Your task to perform on an android device: turn off priority inbox in the gmail app Image 0: 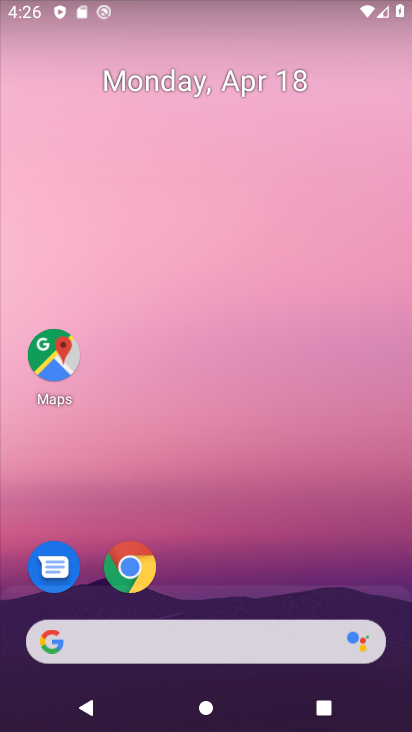
Step 0: drag from (251, 393) to (312, 111)
Your task to perform on an android device: turn off priority inbox in the gmail app Image 1: 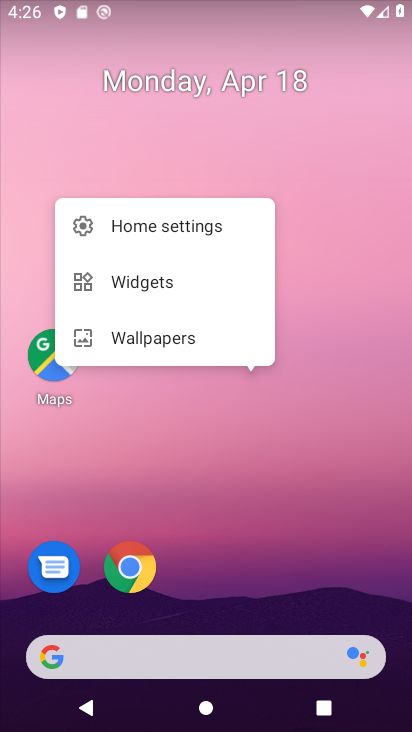
Step 1: drag from (270, 609) to (342, 21)
Your task to perform on an android device: turn off priority inbox in the gmail app Image 2: 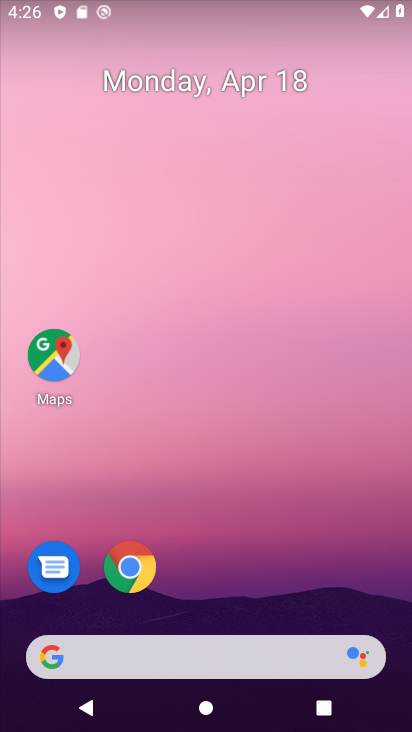
Step 2: drag from (214, 640) to (319, 26)
Your task to perform on an android device: turn off priority inbox in the gmail app Image 3: 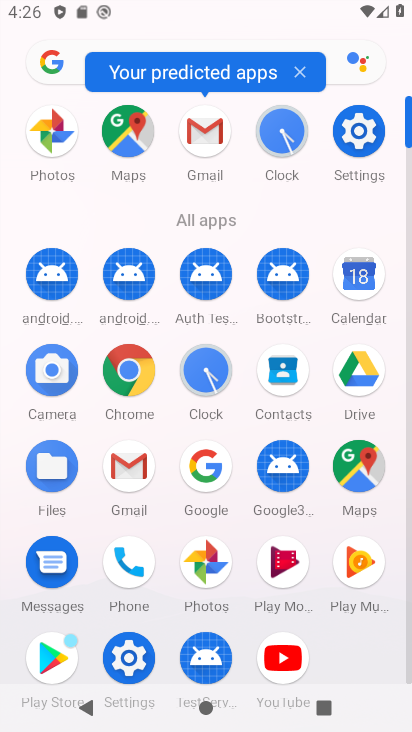
Step 3: click (197, 132)
Your task to perform on an android device: turn off priority inbox in the gmail app Image 4: 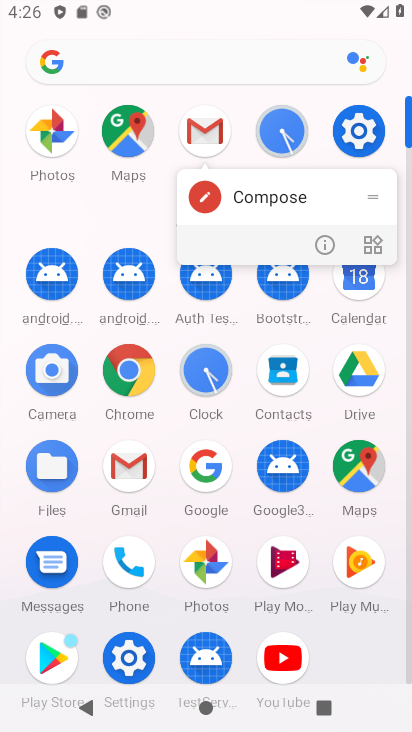
Step 4: click (197, 132)
Your task to perform on an android device: turn off priority inbox in the gmail app Image 5: 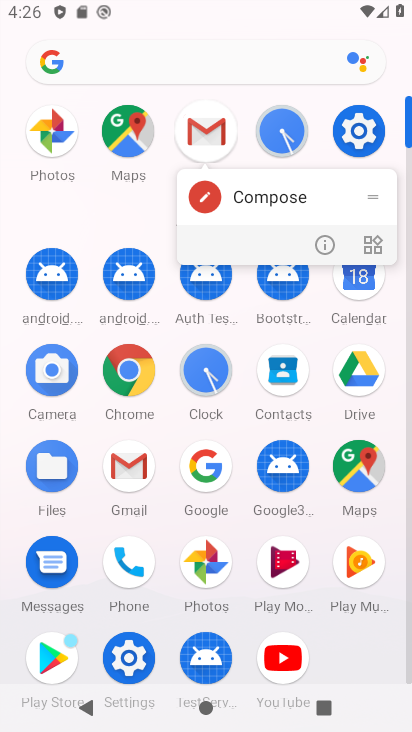
Step 5: click (197, 132)
Your task to perform on an android device: turn off priority inbox in the gmail app Image 6: 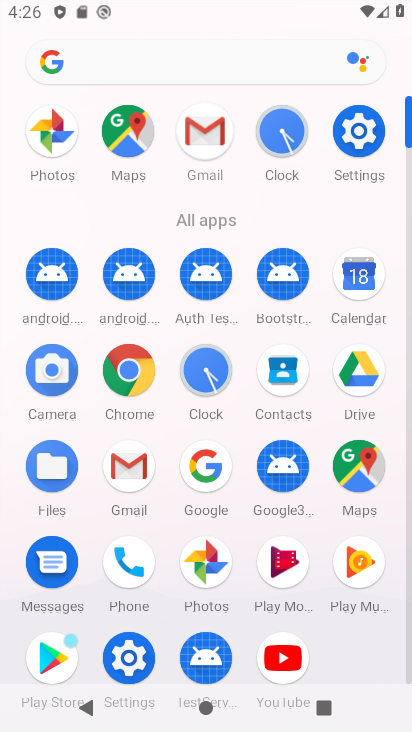
Step 6: click (197, 132)
Your task to perform on an android device: turn off priority inbox in the gmail app Image 7: 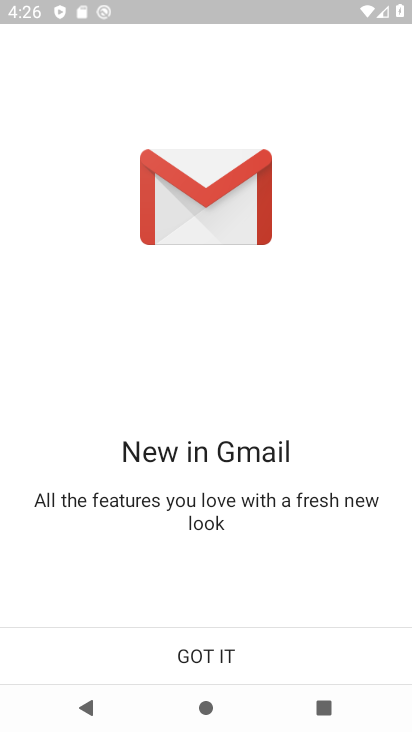
Step 7: click (206, 649)
Your task to perform on an android device: turn off priority inbox in the gmail app Image 8: 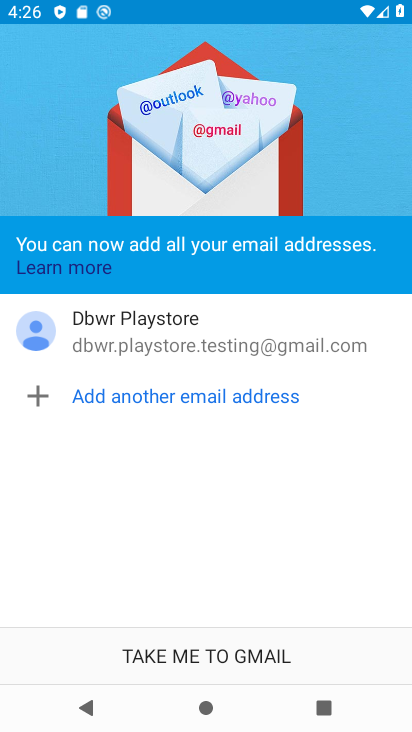
Step 8: click (206, 649)
Your task to perform on an android device: turn off priority inbox in the gmail app Image 9: 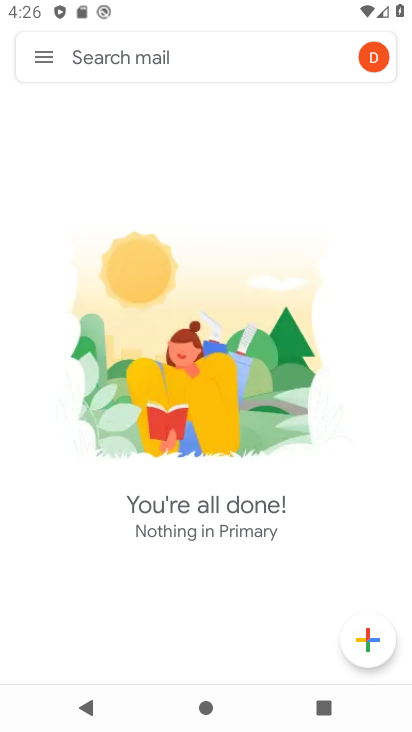
Step 9: click (28, 59)
Your task to perform on an android device: turn off priority inbox in the gmail app Image 10: 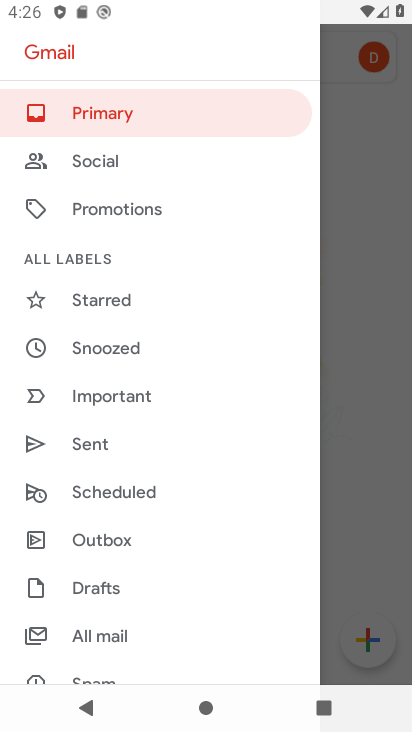
Step 10: drag from (145, 529) to (187, 154)
Your task to perform on an android device: turn off priority inbox in the gmail app Image 11: 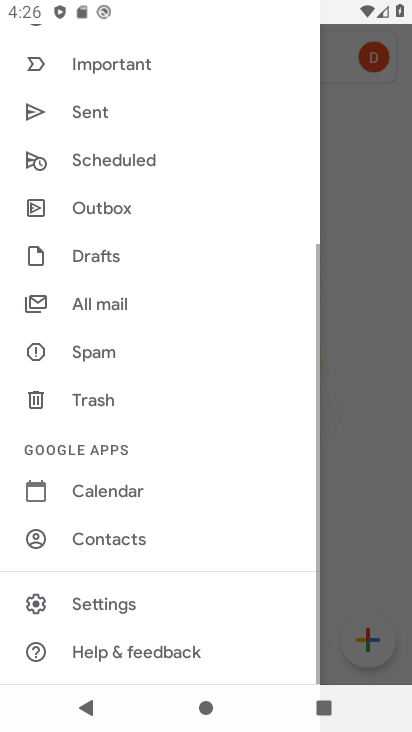
Step 11: click (122, 604)
Your task to perform on an android device: turn off priority inbox in the gmail app Image 12: 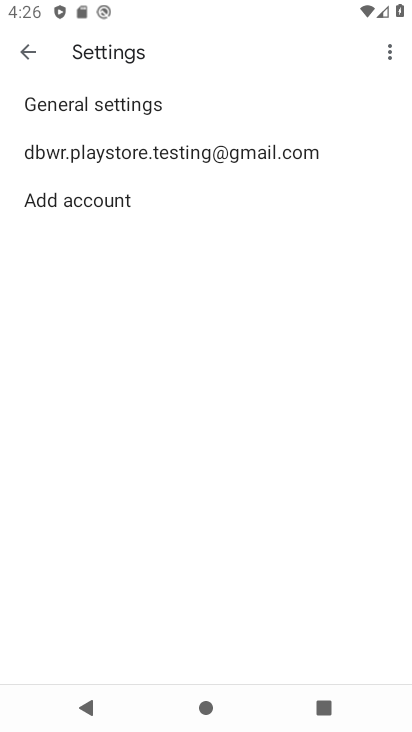
Step 12: click (137, 157)
Your task to perform on an android device: turn off priority inbox in the gmail app Image 13: 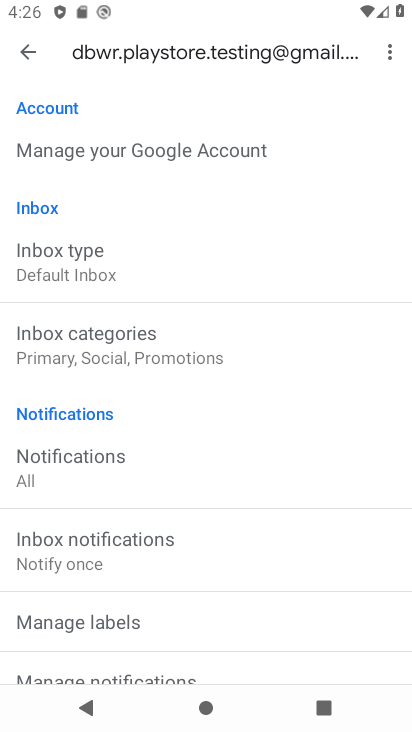
Step 13: click (81, 267)
Your task to perform on an android device: turn off priority inbox in the gmail app Image 14: 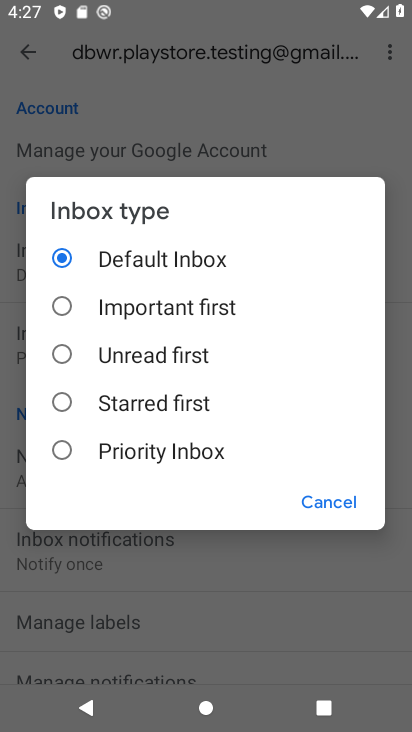
Step 14: task complete